Your task to perform on an android device: Open CNN.com Image 0: 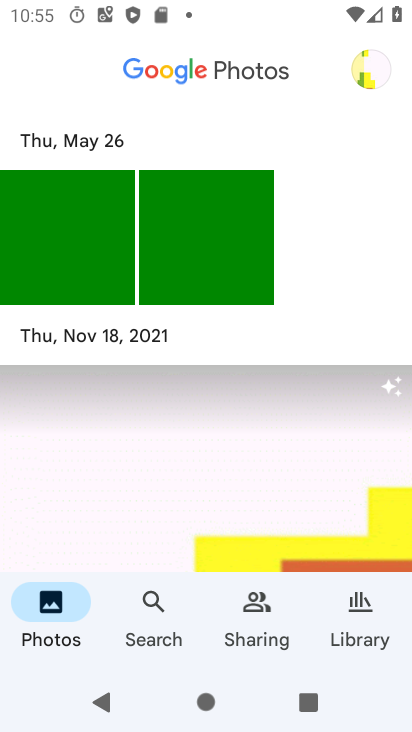
Step 0: press home button
Your task to perform on an android device: Open CNN.com Image 1: 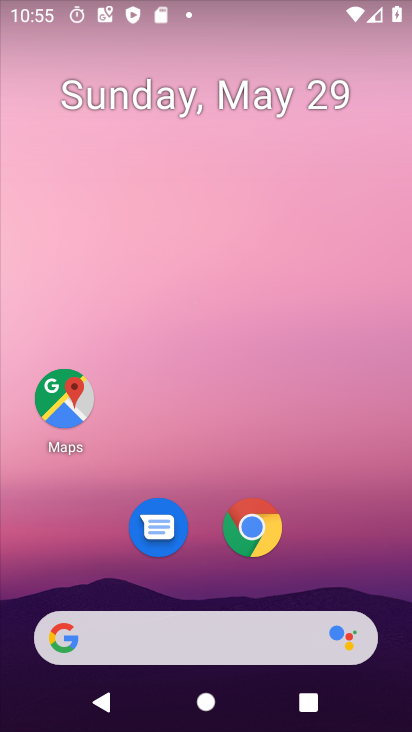
Step 1: click (250, 535)
Your task to perform on an android device: Open CNN.com Image 2: 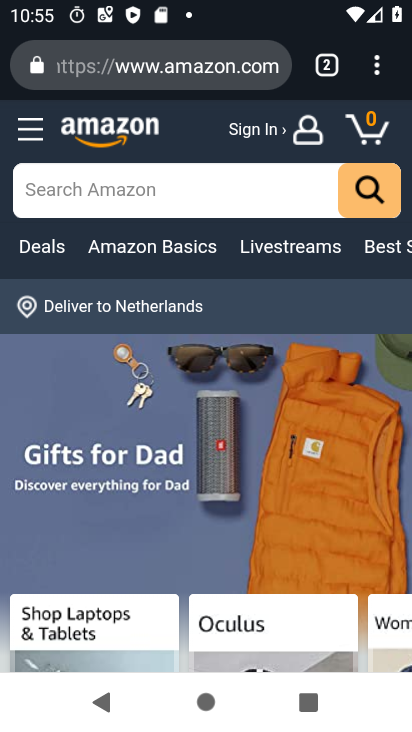
Step 2: click (181, 54)
Your task to perform on an android device: Open CNN.com Image 3: 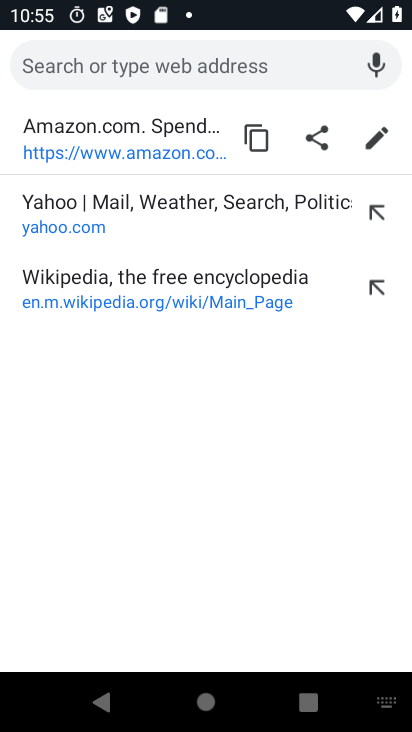
Step 3: type "cnn.com"
Your task to perform on an android device: Open CNN.com Image 4: 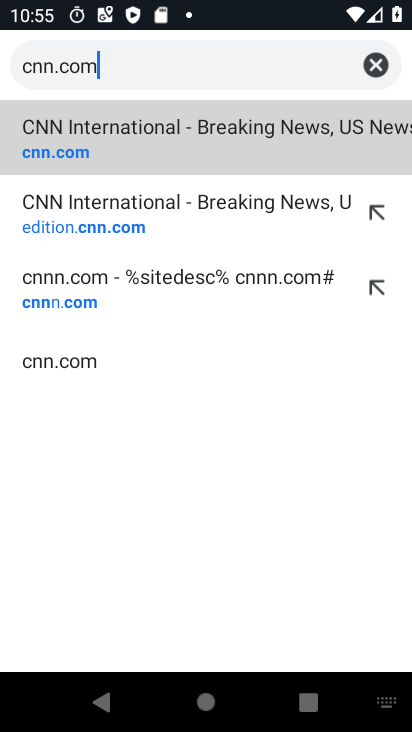
Step 4: click (62, 145)
Your task to perform on an android device: Open CNN.com Image 5: 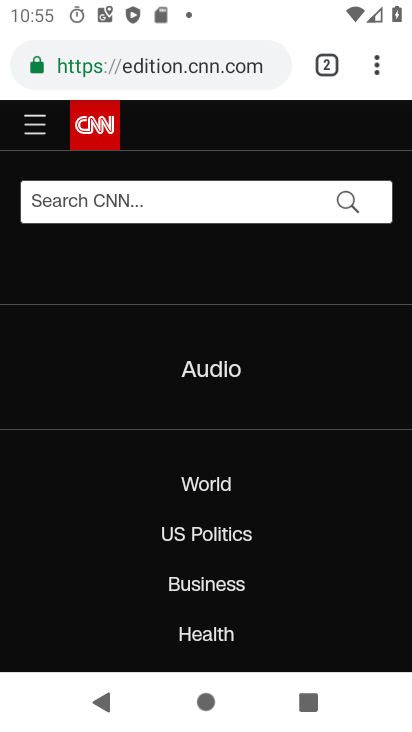
Step 5: task complete